Your task to perform on an android device: search for starred emails in the gmail app Image 0: 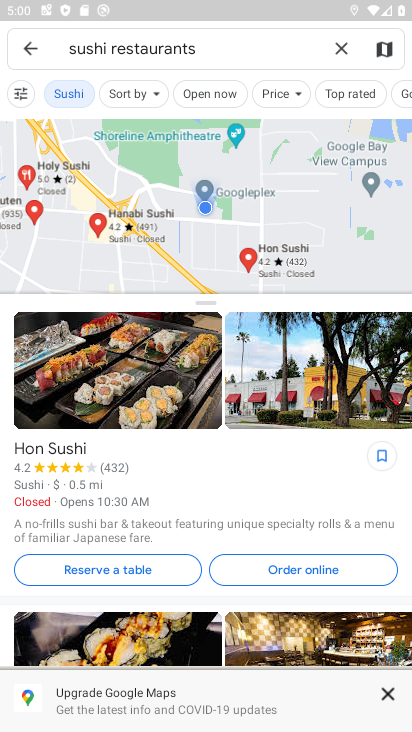
Step 0: press home button
Your task to perform on an android device: search for starred emails in the gmail app Image 1: 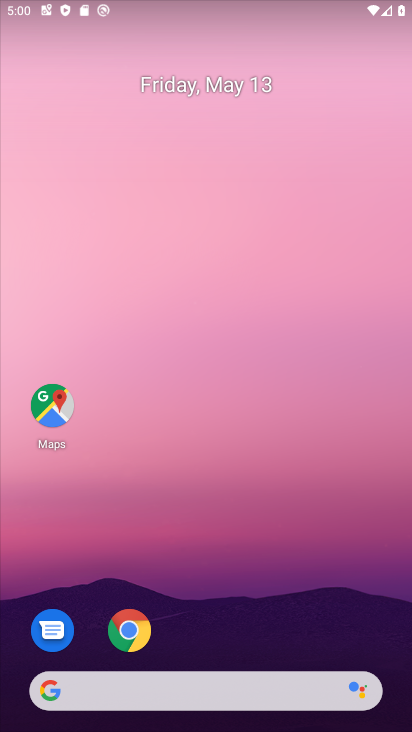
Step 1: drag from (291, 532) to (255, 27)
Your task to perform on an android device: search for starred emails in the gmail app Image 2: 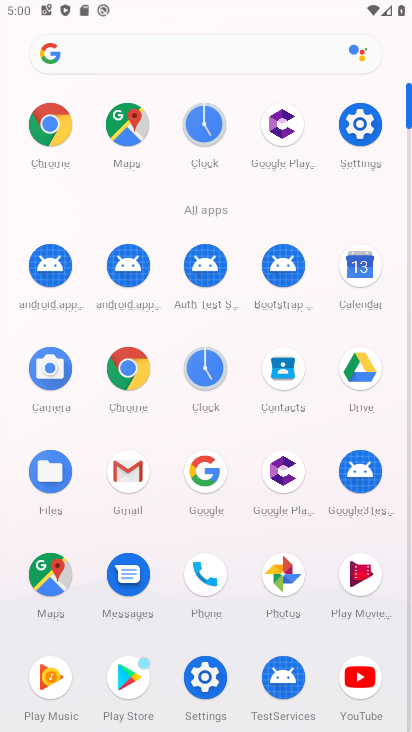
Step 2: click (133, 472)
Your task to perform on an android device: search for starred emails in the gmail app Image 3: 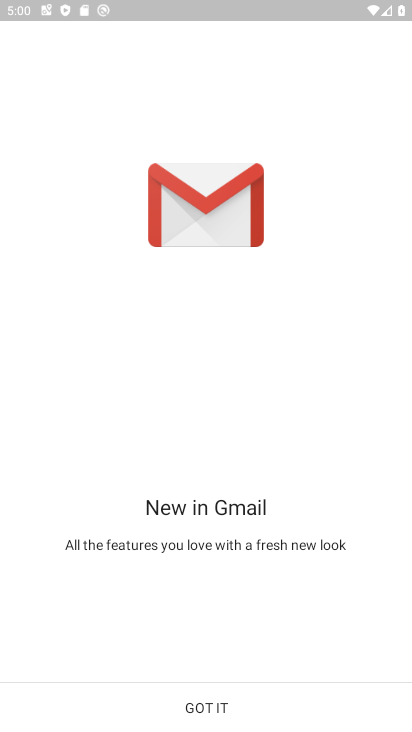
Step 3: click (261, 729)
Your task to perform on an android device: search for starred emails in the gmail app Image 4: 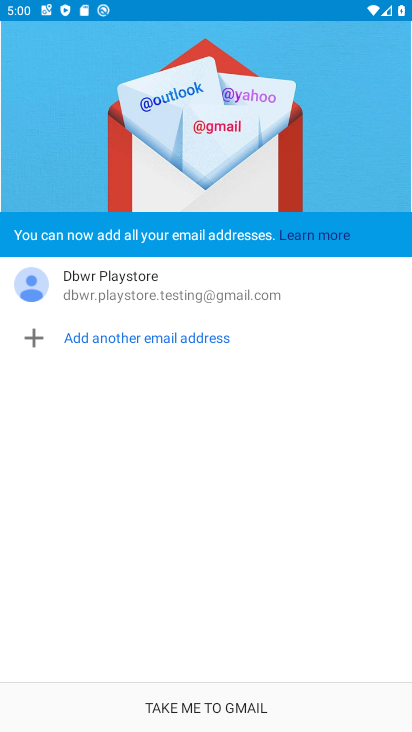
Step 4: click (257, 726)
Your task to perform on an android device: search for starred emails in the gmail app Image 5: 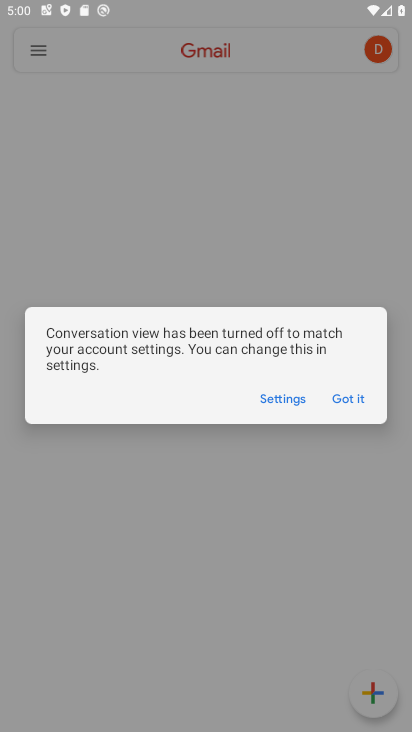
Step 5: click (255, 712)
Your task to perform on an android device: search for starred emails in the gmail app Image 6: 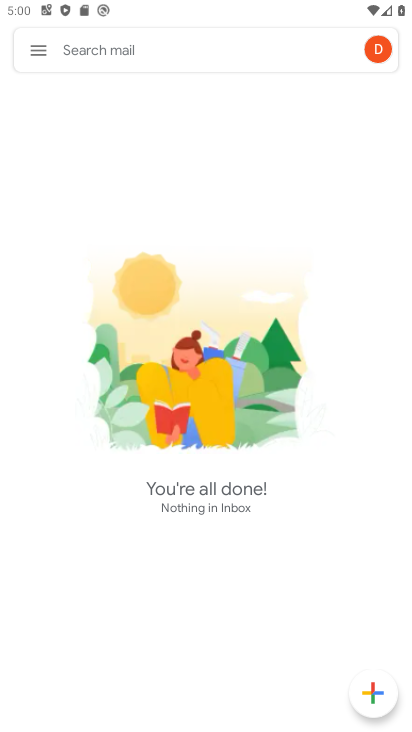
Step 6: click (35, 47)
Your task to perform on an android device: search for starred emails in the gmail app Image 7: 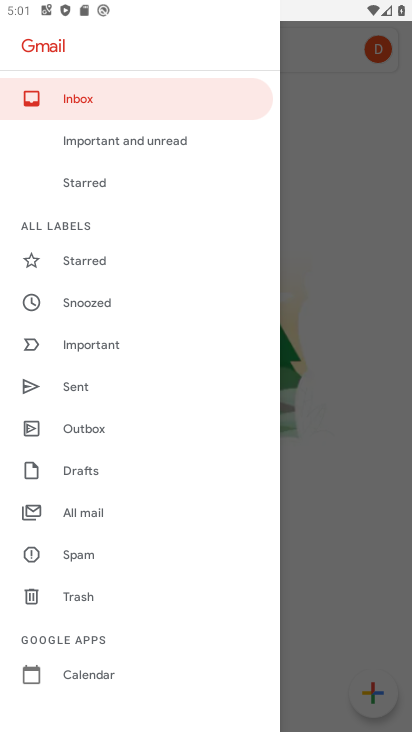
Step 7: click (97, 265)
Your task to perform on an android device: search for starred emails in the gmail app Image 8: 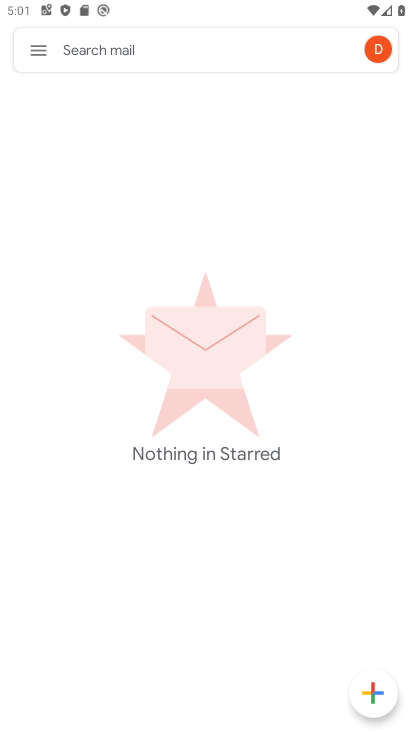
Step 8: task complete